Your task to perform on an android device: Search for vegetarian restaurants on Maps Image 0: 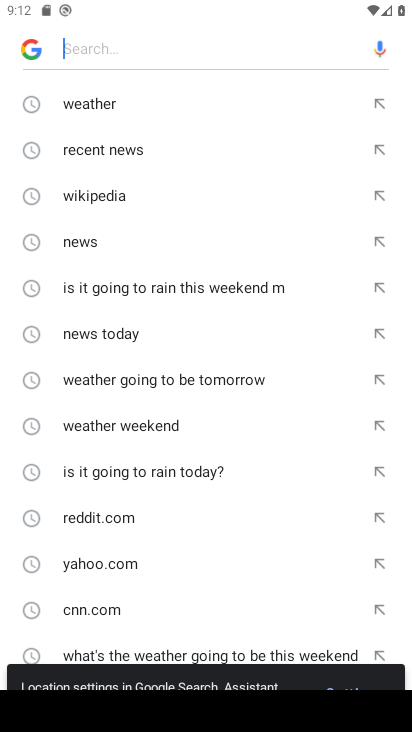
Step 0: press home button
Your task to perform on an android device: Search for vegetarian restaurants on Maps Image 1: 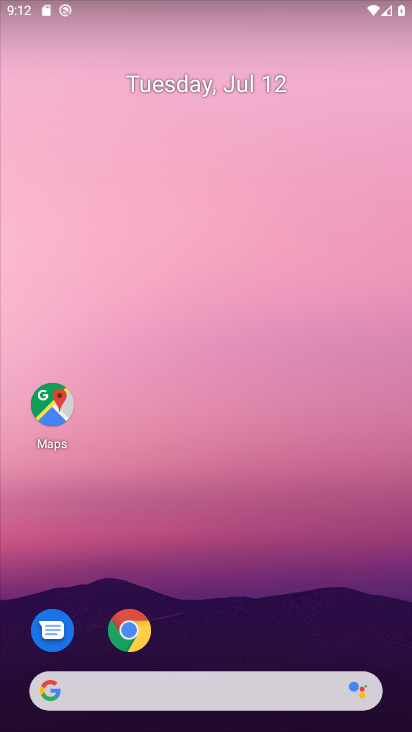
Step 1: drag from (177, 648) to (279, 92)
Your task to perform on an android device: Search for vegetarian restaurants on Maps Image 2: 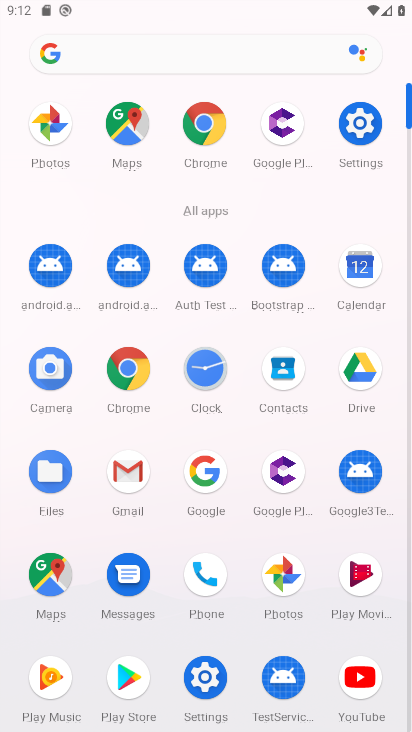
Step 2: click (69, 586)
Your task to perform on an android device: Search for vegetarian restaurants on Maps Image 3: 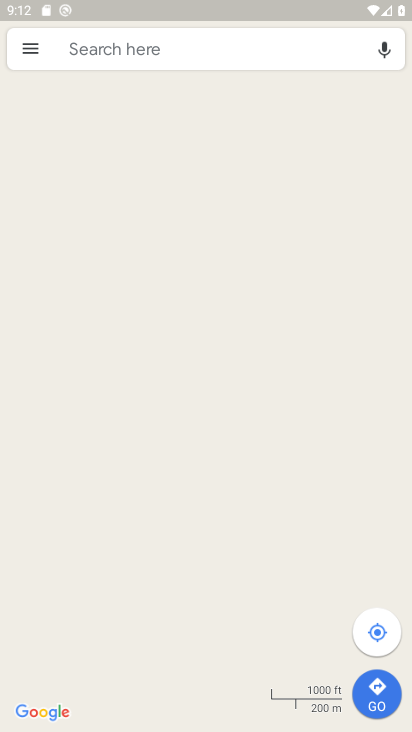
Step 3: click (124, 56)
Your task to perform on an android device: Search for vegetarian restaurants on Maps Image 4: 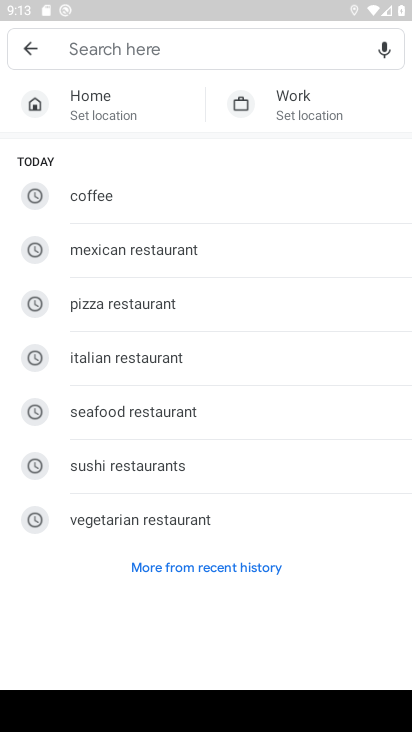
Step 4: type "vegetarian restaurants"
Your task to perform on an android device: Search for vegetarian restaurants on Maps Image 5: 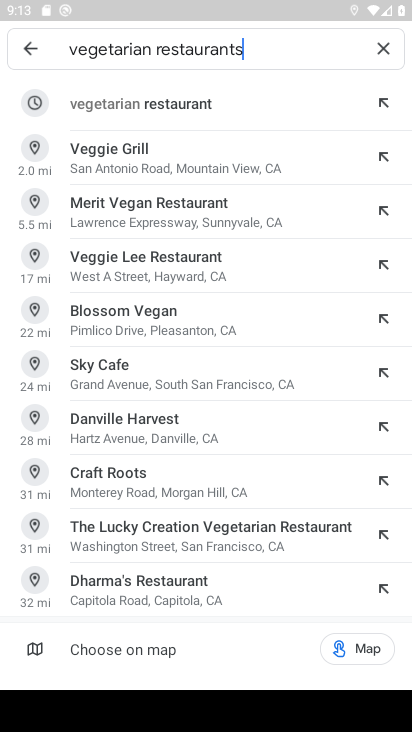
Step 5: click (200, 117)
Your task to perform on an android device: Search for vegetarian restaurants on Maps Image 6: 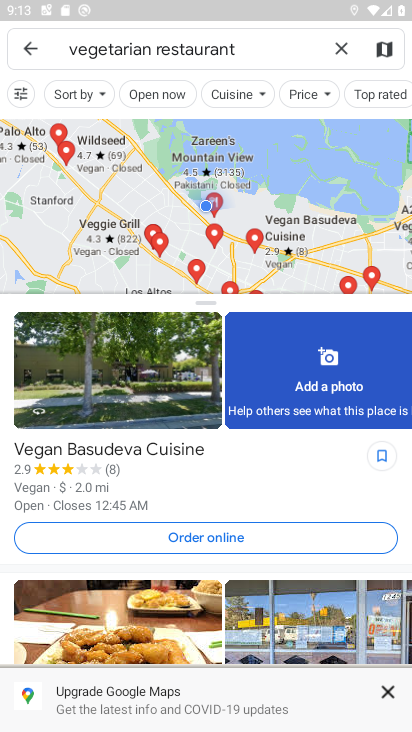
Step 6: task complete